Your task to perform on an android device: toggle wifi Image 0: 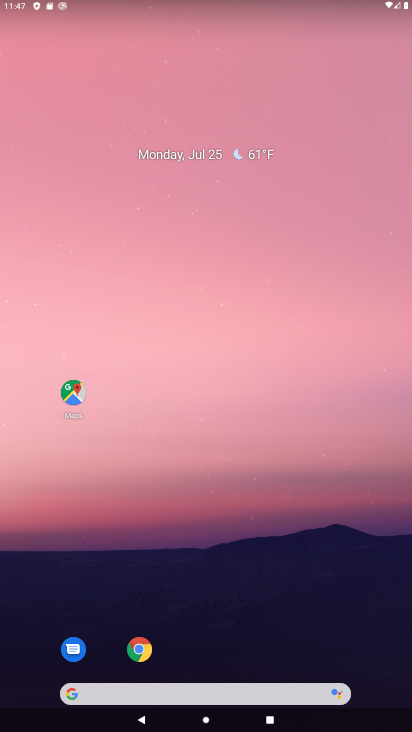
Step 0: drag from (227, 654) to (177, 132)
Your task to perform on an android device: toggle wifi Image 1: 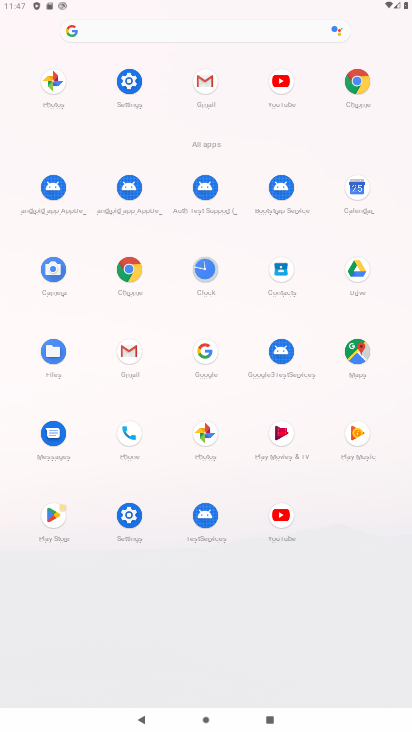
Step 1: click (137, 88)
Your task to perform on an android device: toggle wifi Image 2: 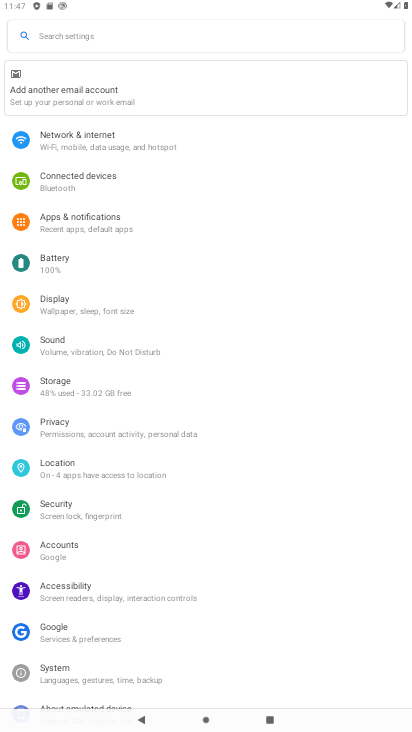
Step 2: click (111, 149)
Your task to perform on an android device: toggle wifi Image 3: 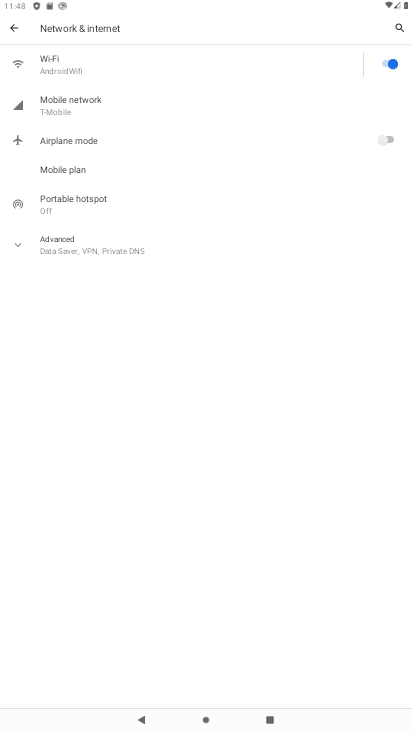
Step 3: click (152, 66)
Your task to perform on an android device: toggle wifi Image 4: 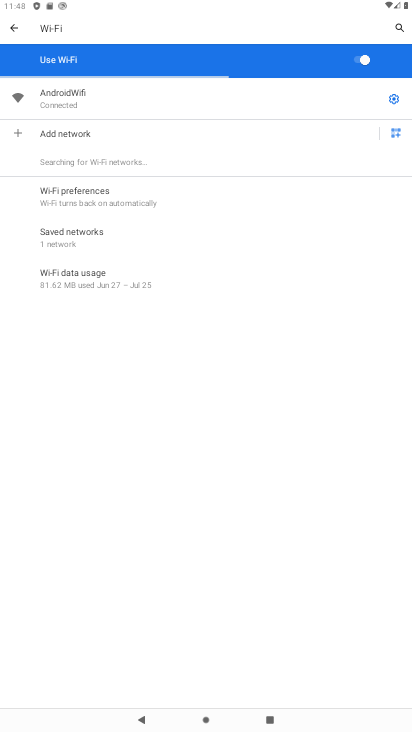
Step 4: click (352, 54)
Your task to perform on an android device: toggle wifi Image 5: 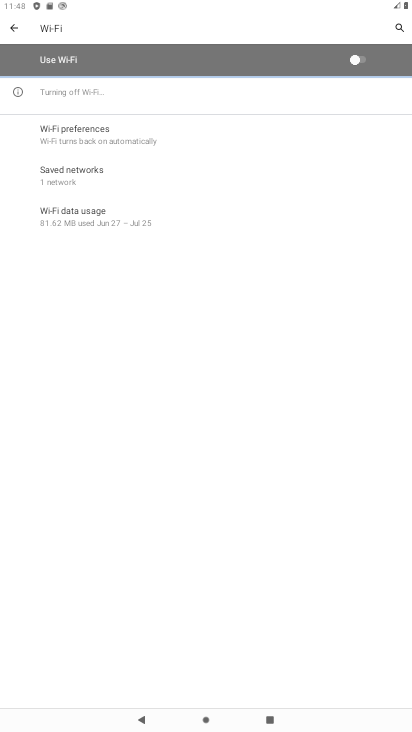
Step 5: task complete